Your task to perform on an android device: What's the weather going to be tomorrow? Image 0: 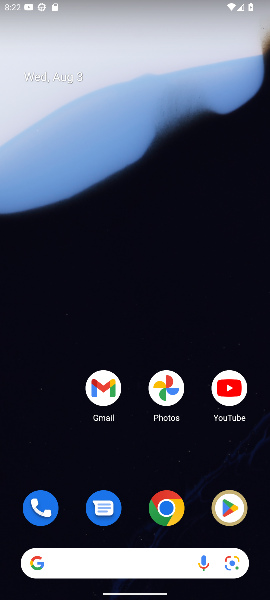
Step 0: drag from (111, 559) to (65, 22)
Your task to perform on an android device: What's the weather going to be tomorrow? Image 1: 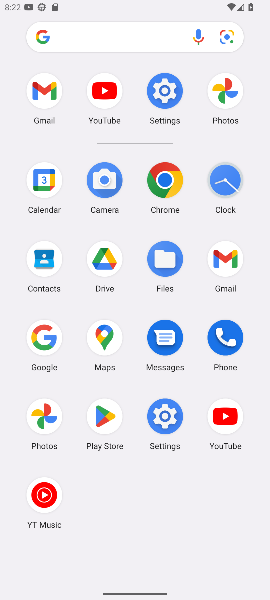
Step 1: click (40, 339)
Your task to perform on an android device: What's the weather going to be tomorrow? Image 2: 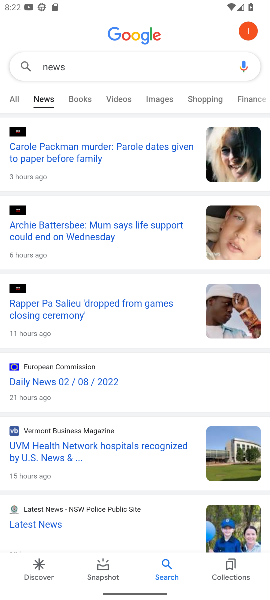
Step 2: click (65, 75)
Your task to perform on an android device: What's the weather going to be tomorrow? Image 3: 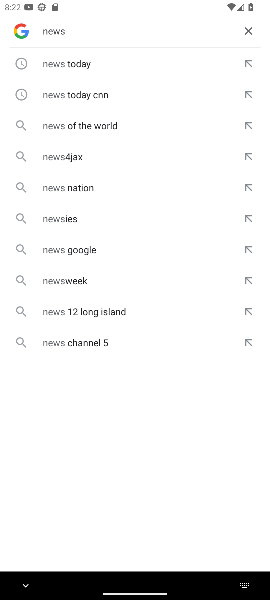
Step 3: click (244, 21)
Your task to perform on an android device: What's the weather going to be tomorrow? Image 4: 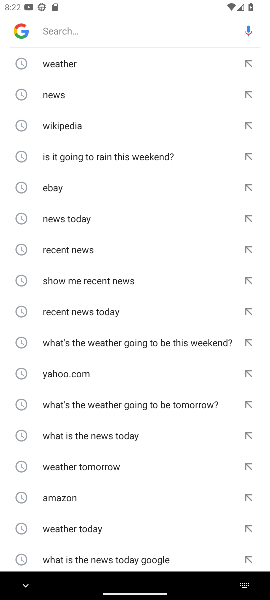
Step 4: click (60, 58)
Your task to perform on an android device: What's the weather going to be tomorrow? Image 5: 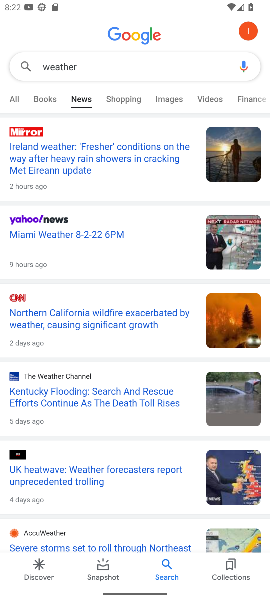
Step 5: click (16, 98)
Your task to perform on an android device: What's the weather going to be tomorrow? Image 6: 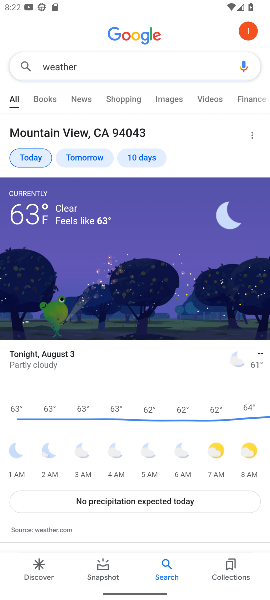
Step 6: task complete